Your task to perform on an android device: Open display settings Image 0: 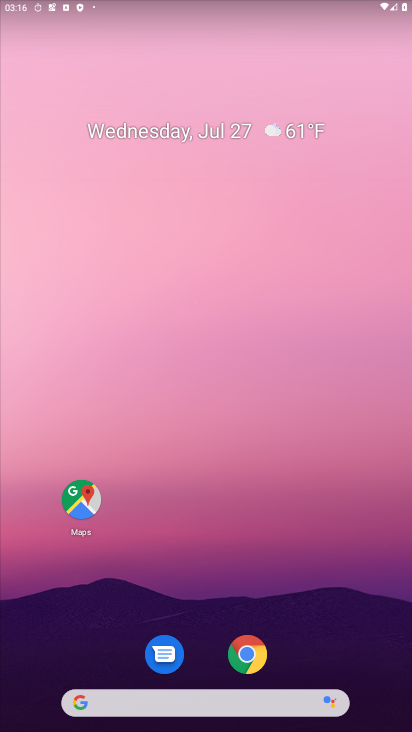
Step 0: drag from (301, 684) to (317, 0)
Your task to perform on an android device: Open display settings Image 1: 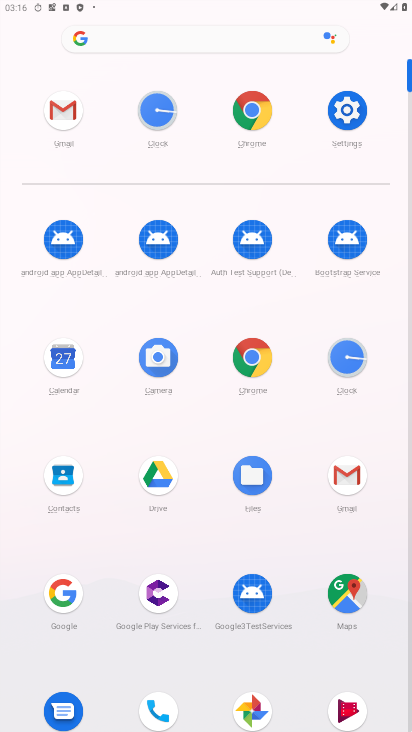
Step 1: click (353, 109)
Your task to perform on an android device: Open display settings Image 2: 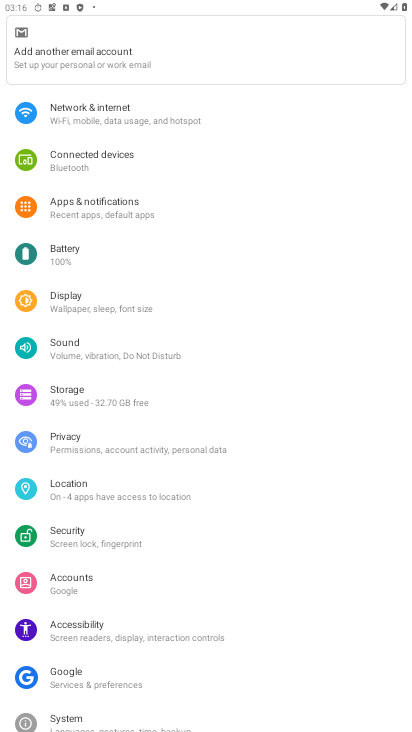
Step 2: click (83, 291)
Your task to perform on an android device: Open display settings Image 3: 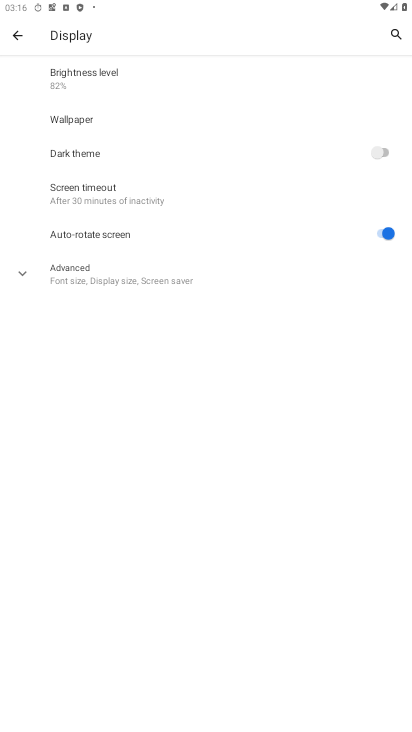
Step 3: task complete